Your task to perform on an android device: Open calendar and show me the second week of next month Image 0: 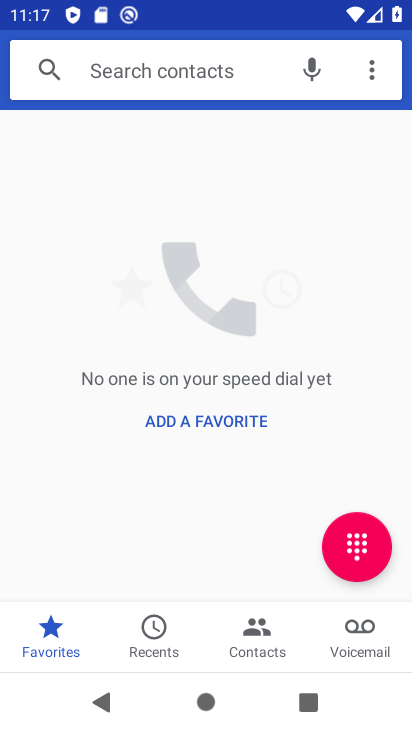
Step 0: press home button
Your task to perform on an android device: Open calendar and show me the second week of next month Image 1: 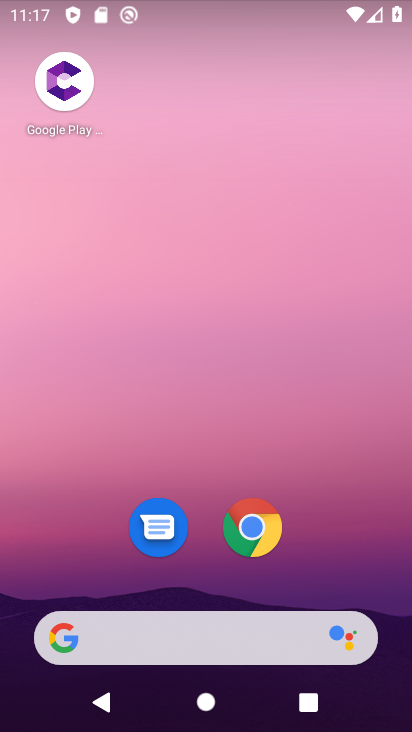
Step 1: click (354, 368)
Your task to perform on an android device: Open calendar and show me the second week of next month Image 2: 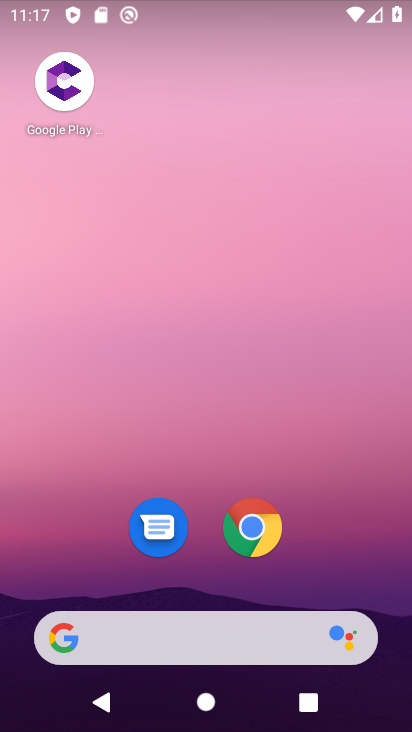
Step 2: drag from (367, 406) to (348, 17)
Your task to perform on an android device: Open calendar and show me the second week of next month Image 3: 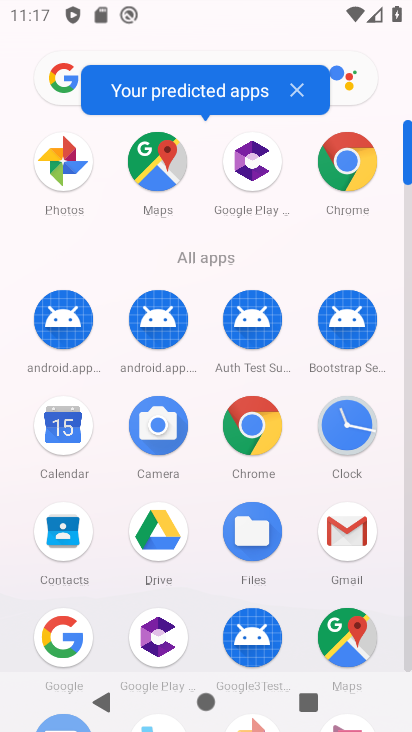
Step 3: click (406, 642)
Your task to perform on an android device: Open calendar and show me the second week of next month Image 4: 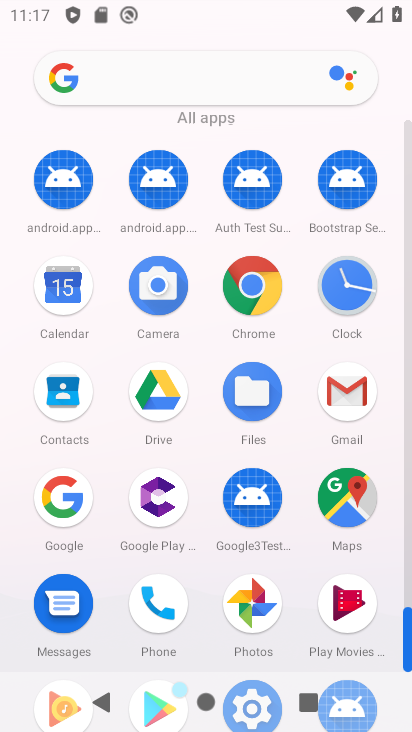
Step 4: click (72, 307)
Your task to perform on an android device: Open calendar and show me the second week of next month Image 5: 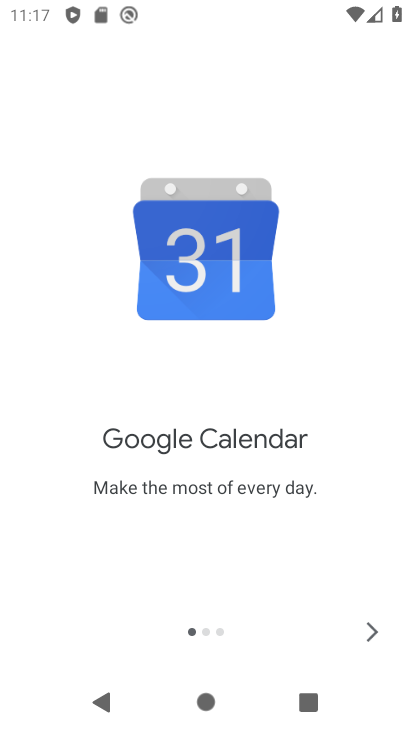
Step 5: click (366, 622)
Your task to perform on an android device: Open calendar and show me the second week of next month Image 6: 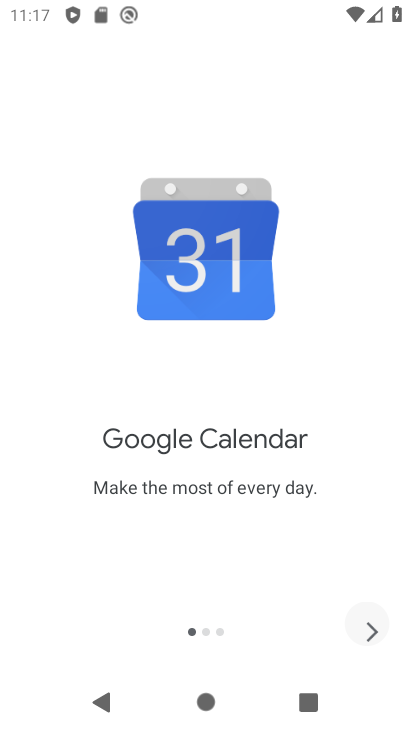
Step 6: click (366, 622)
Your task to perform on an android device: Open calendar and show me the second week of next month Image 7: 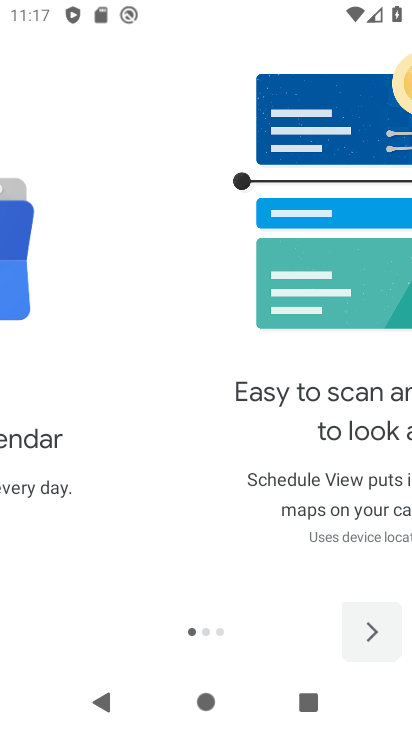
Step 7: click (366, 622)
Your task to perform on an android device: Open calendar and show me the second week of next month Image 8: 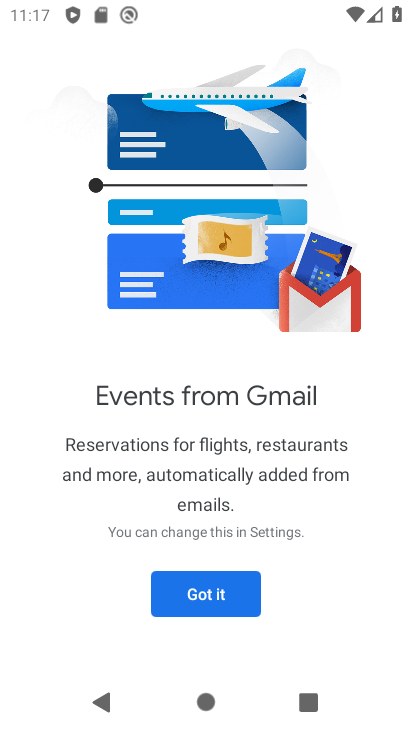
Step 8: click (202, 609)
Your task to perform on an android device: Open calendar and show me the second week of next month Image 9: 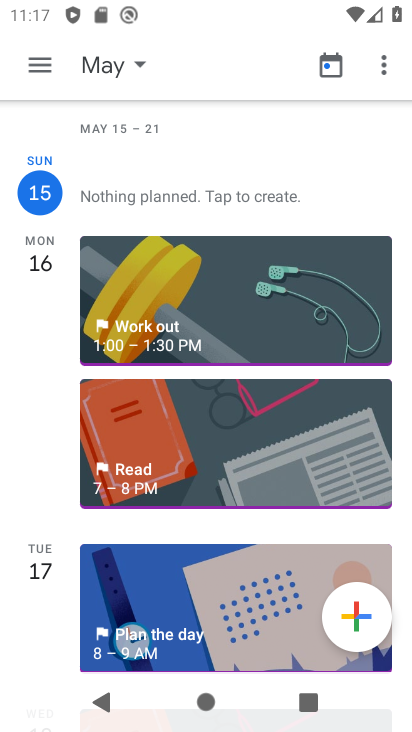
Step 9: click (116, 52)
Your task to perform on an android device: Open calendar and show me the second week of next month Image 10: 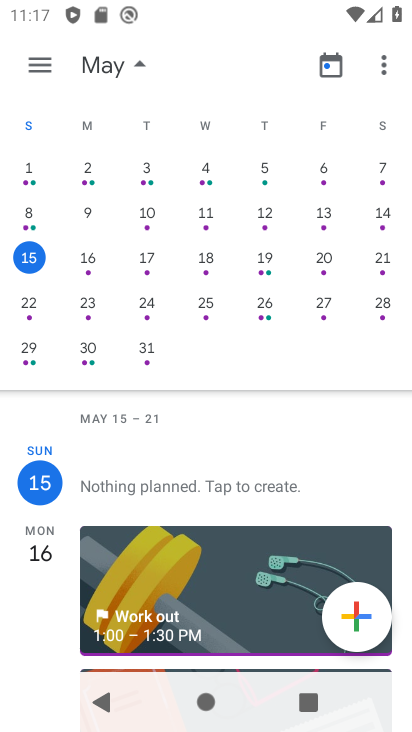
Step 10: drag from (359, 313) to (186, 301)
Your task to perform on an android device: Open calendar and show me the second week of next month Image 11: 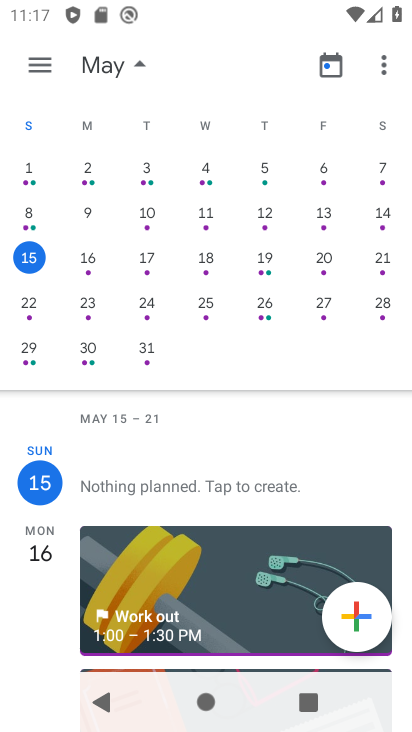
Step 11: drag from (385, 281) to (85, 295)
Your task to perform on an android device: Open calendar and show me the second week of next month Image 12: 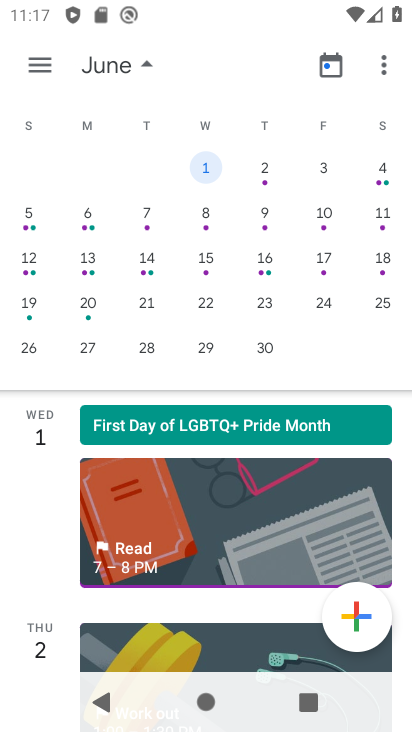
Step 12: click (157, 271)
Your task to perform on an android device: Open calendar and show me the second week of next month Image 13: 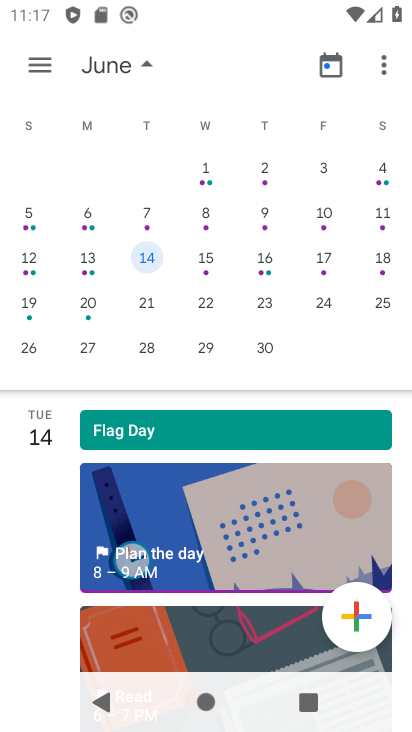
Step 13: task complete